Your task to perform on an android device: What's on my calendar tomorrow? Image 0: 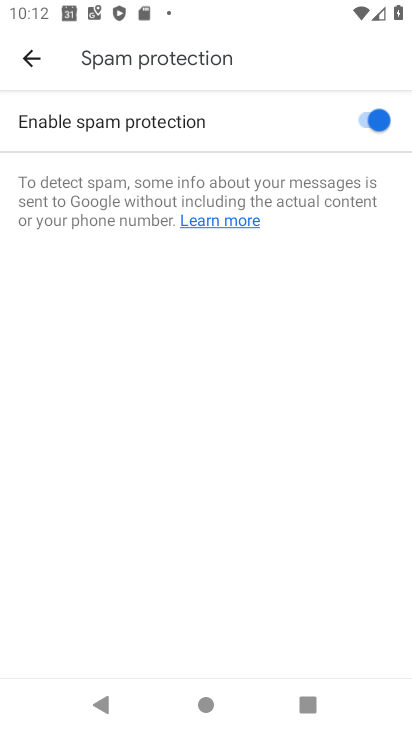
Step 0: press home button
Your task to perform on an android device: What's on my calendar tomorrow? Image 1: 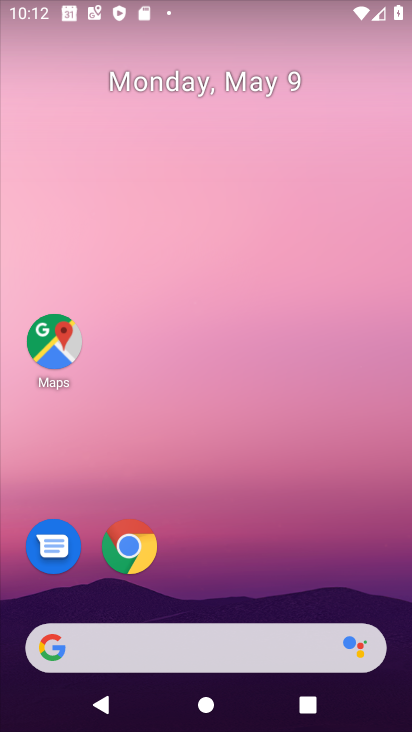
Step 1: drag from (253, 706) to (284, 46)
Your task to perform on an android device: What's on my calendar tomorrow? Image 2: 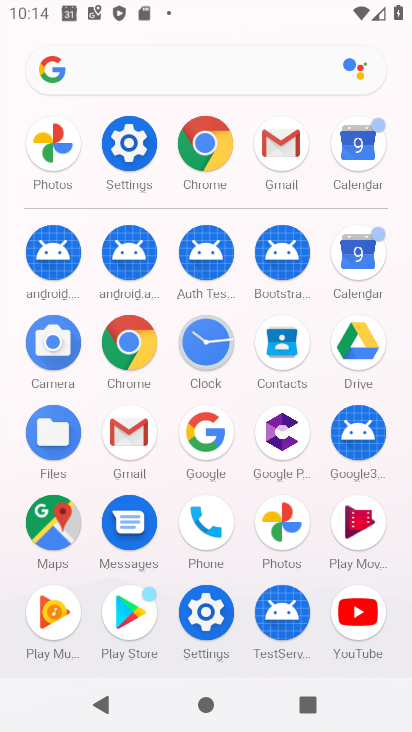
Step 2: click (369, 234)
Your task to perform on an android device: What's on my calendar tomorrow? Image 3: 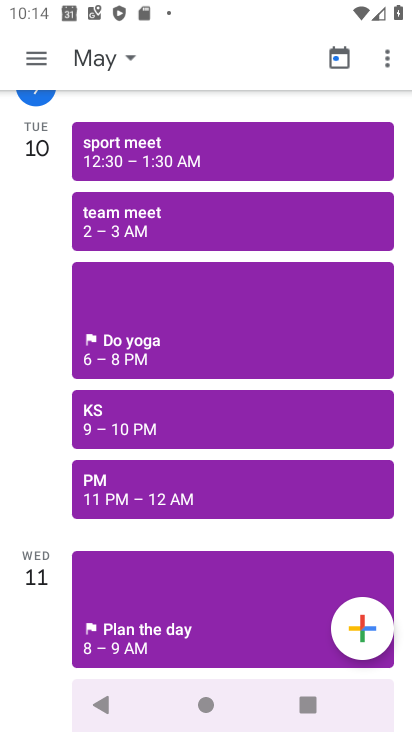
Step 3: task complete